Your task to perform on an android device: What's the weather today? Image 0: 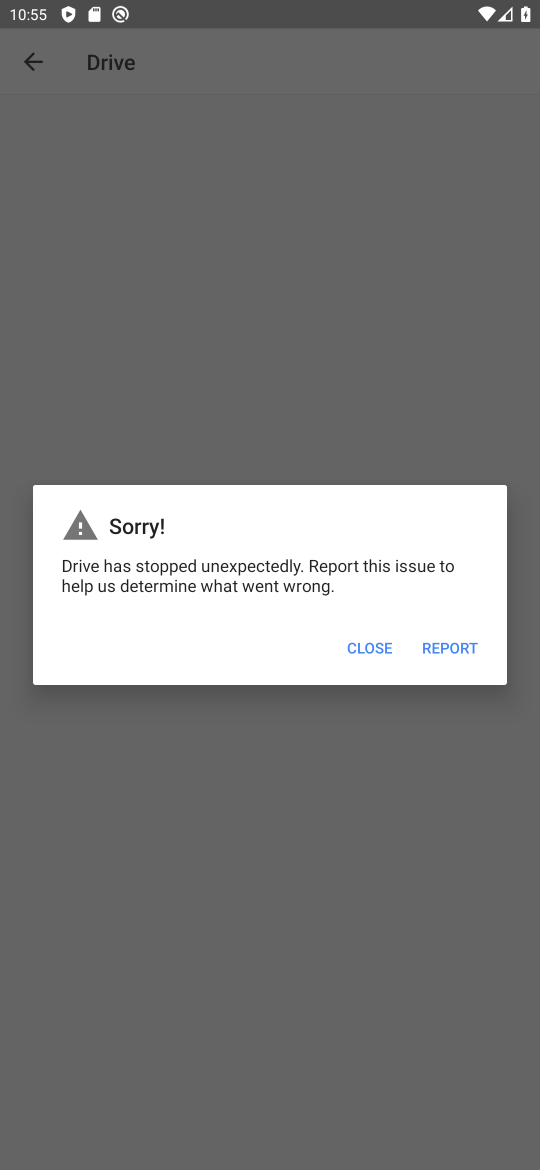
Step 0: press home button
Your task to perform on an android device: What's the weather today? Image 1: 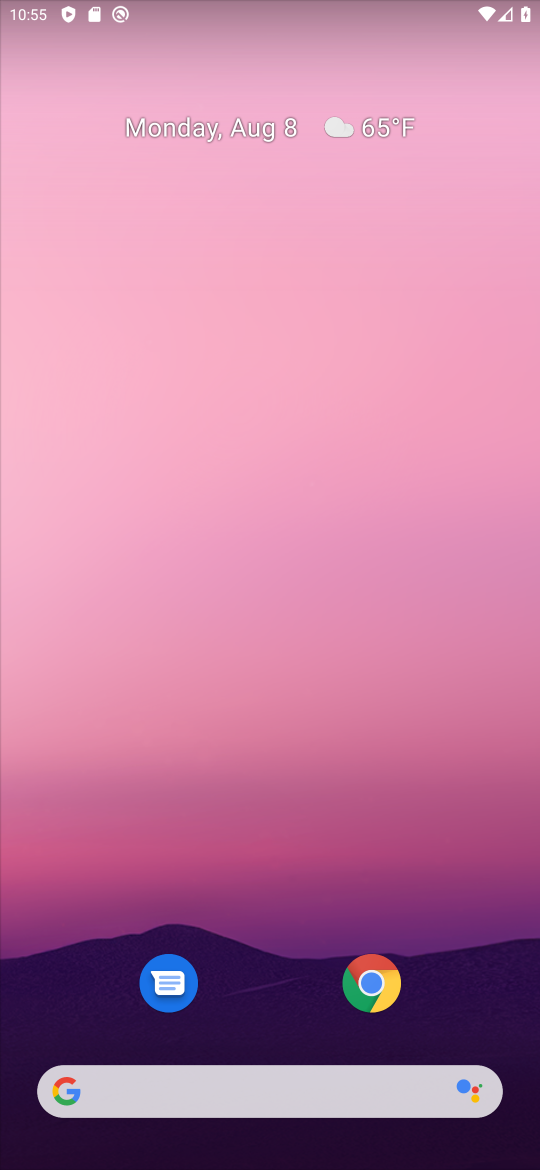
Step 1: click (333, 1089)
Your task to perform on an android device: What's the weather today? Image 2: 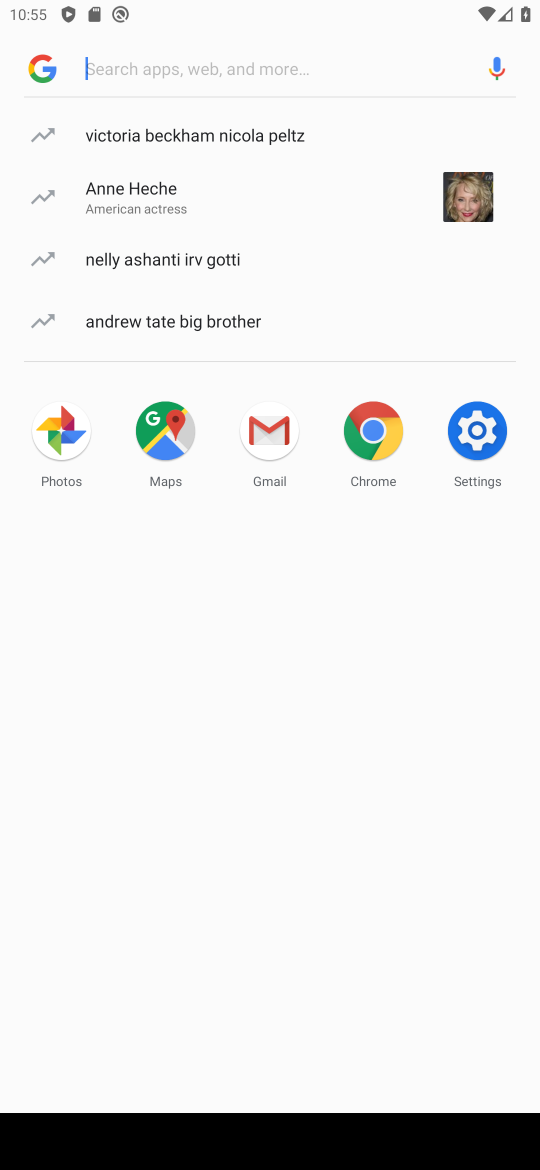
Step 2: type "weather"
Your task to perform on an android device: What's the weather today? Image 3: 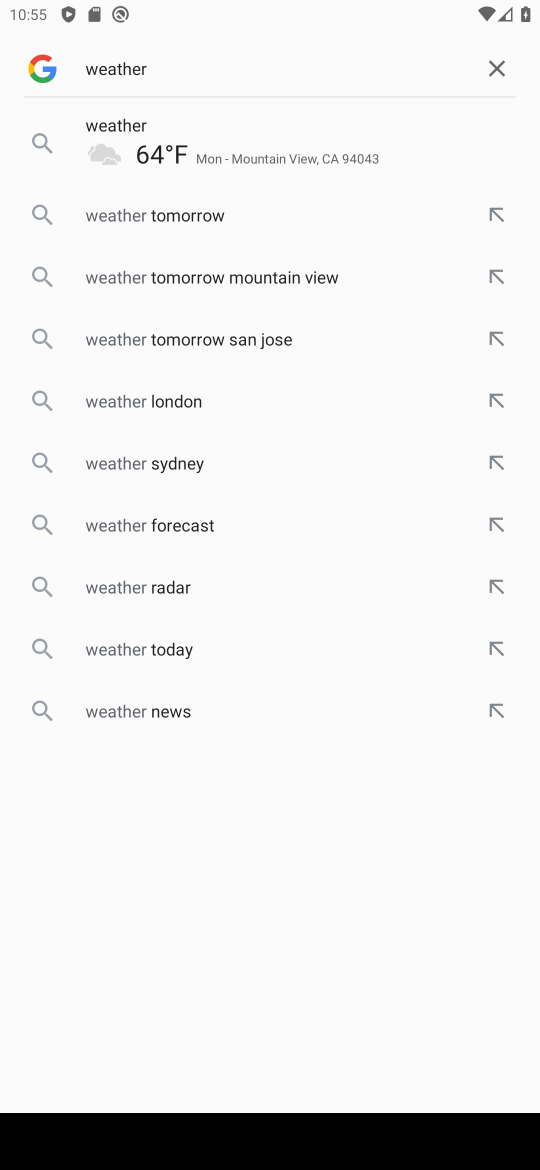
Step 3: click (176, 151)
Your task to perform on an android device: What's the weather today? Image 4: 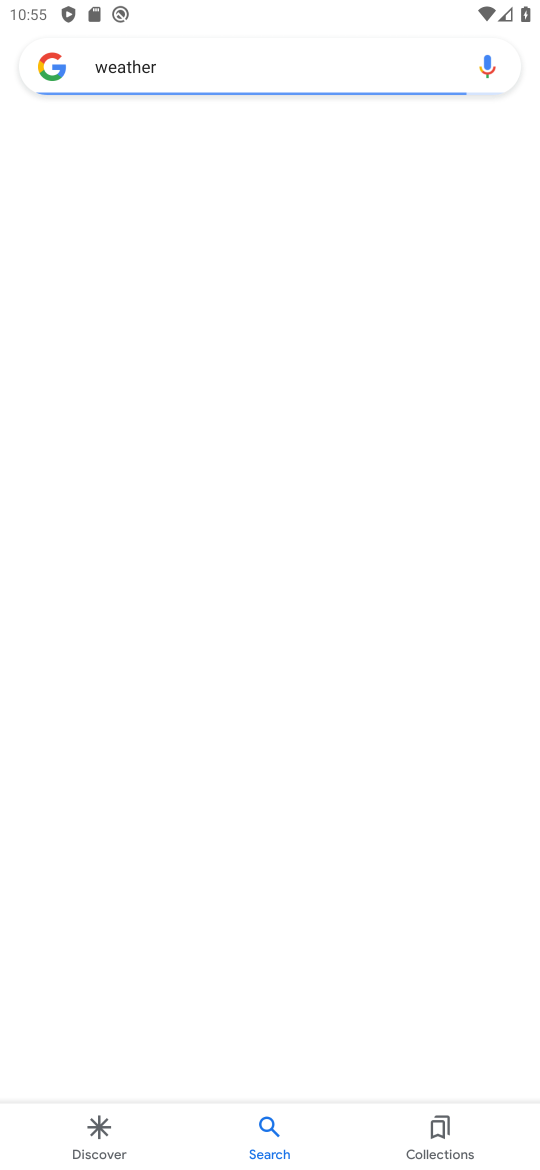
Step 4: task complete